Your task to perform on an android device: turn on location history Image 0: 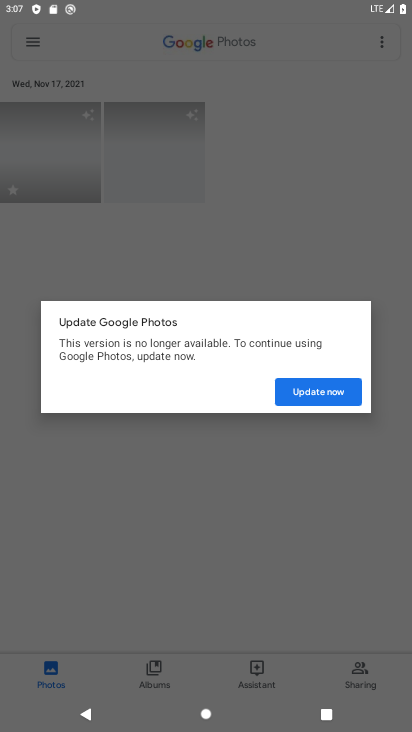
Step 0: press home button
Your task to perform on an android device: turn on location history Image 1: 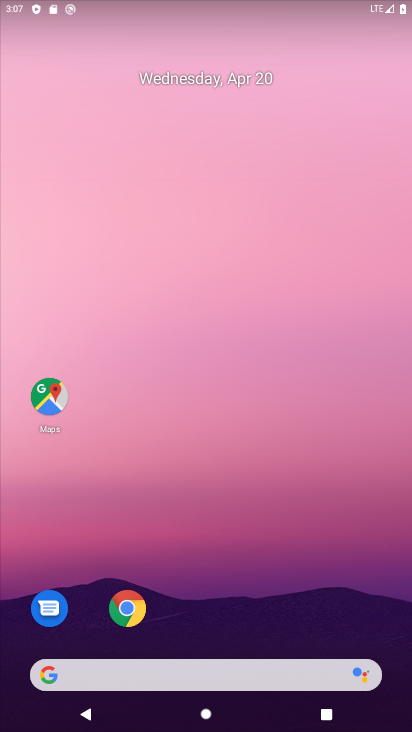
Step 1: drag from (203, 621) to (198, 45)
Your task to perform on an android device: turn on location history Image 2: 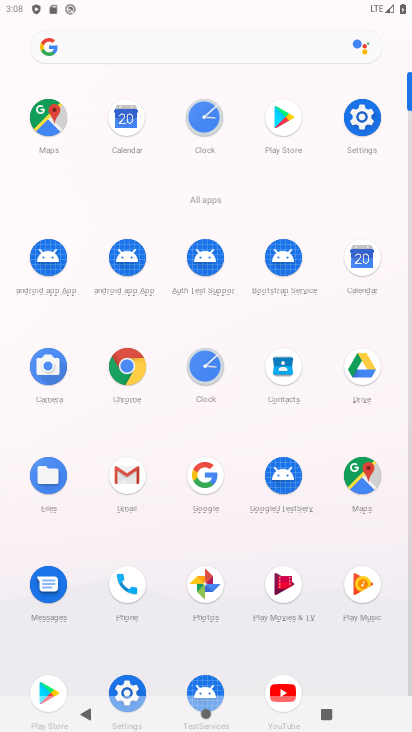
Step 2: click (366, 112)
Your task to perform on an android device: turn on location history Image 3: 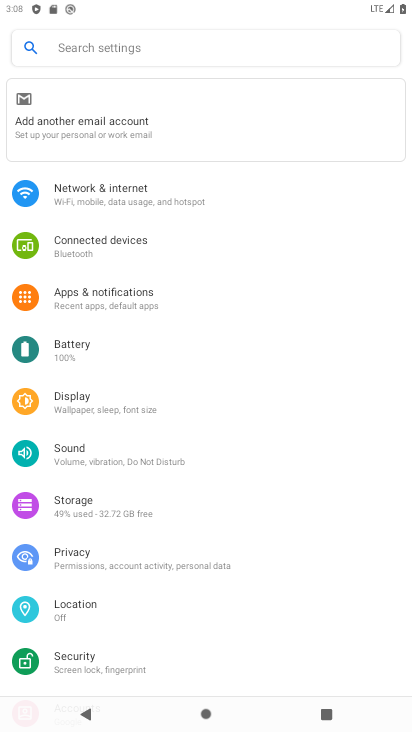
Step 3: click (83, 601)
Your task to perform on an android device: turn on location history Image 4: 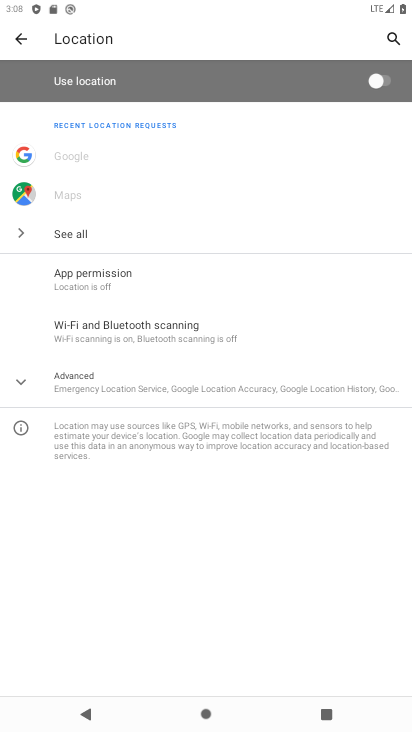
Step 4: click (113, 372)
Your task to perform on an android device: turn on location history Image 5: 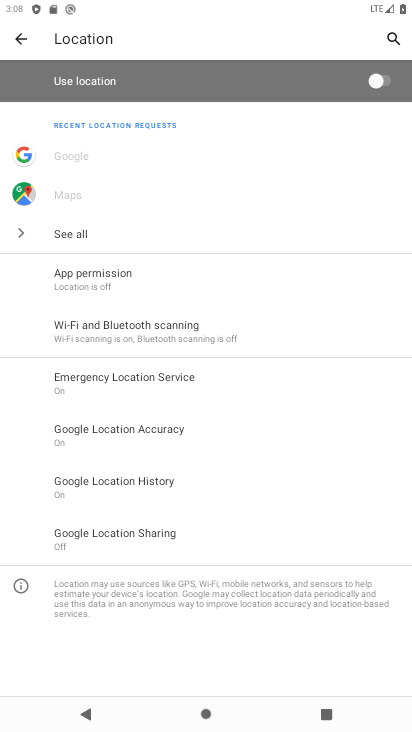
Step 5: click (144, 473)
Your task to perform on an android device: turn on location history Image 6: 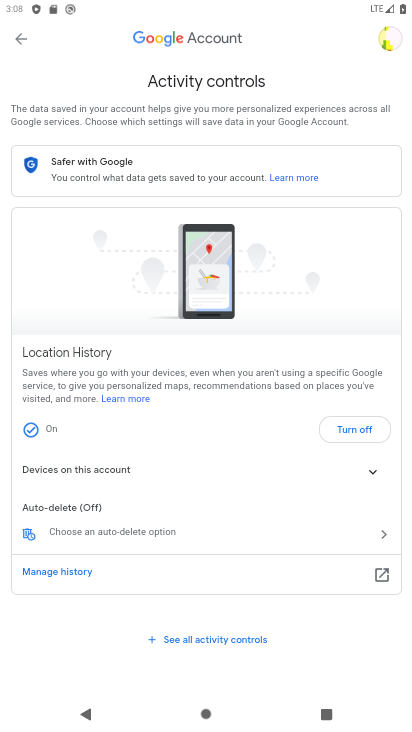
Step 6: task complete